Your task to perform on an android device: Go to CNN.com Image 0: 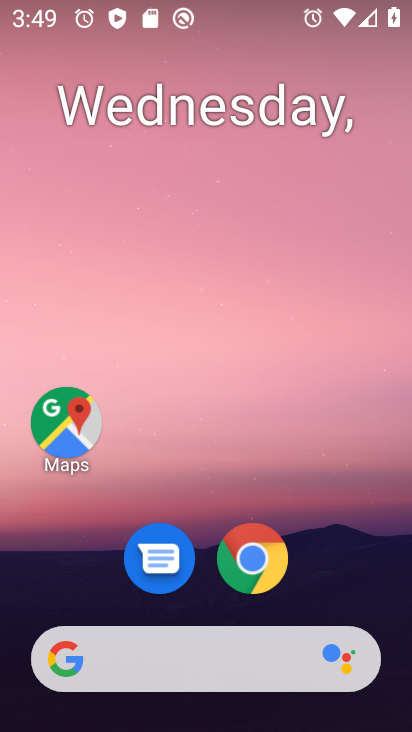
Step 0: click (236, 563)
Your task to perform on an android device: Go to CNN.com Image 1: 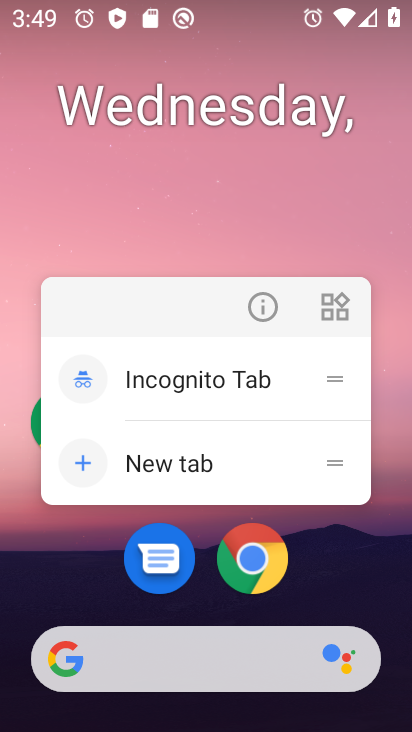
Step 1: click (258, 561)
Your task to perform on an android device: Go to CNN.com Image 2: 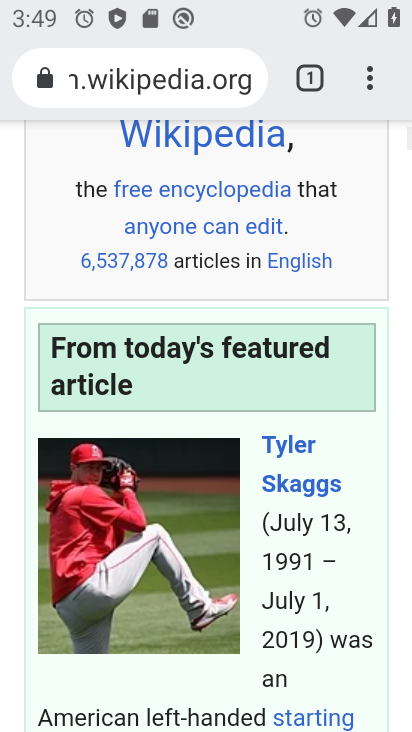
Step 2: click (303, 78)
Your task to perform on an android device: Go to CNN.com Image 3: 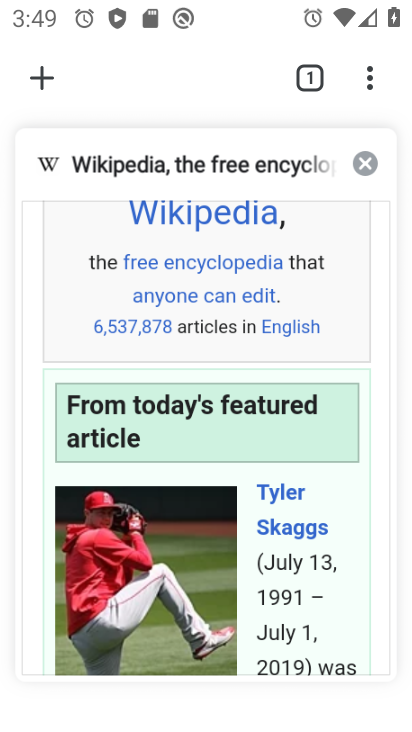
Step 3: click (366, 164)
Your task to perform on an android device: Go to CNN.com Image 4: 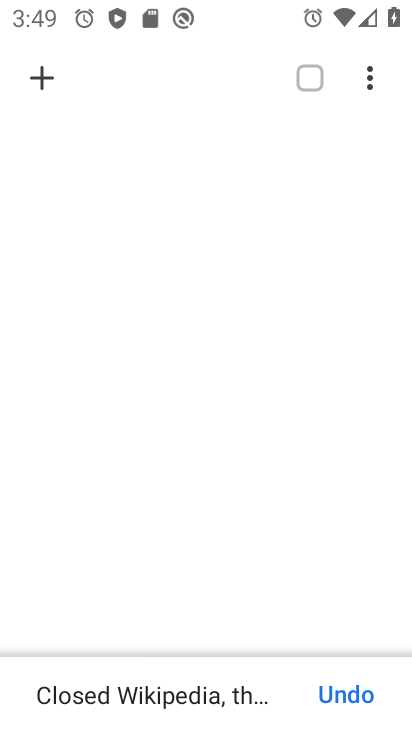
Step 4: click (37, 85)
Your task to perform on an android device: Go to CNN.com Image 5: 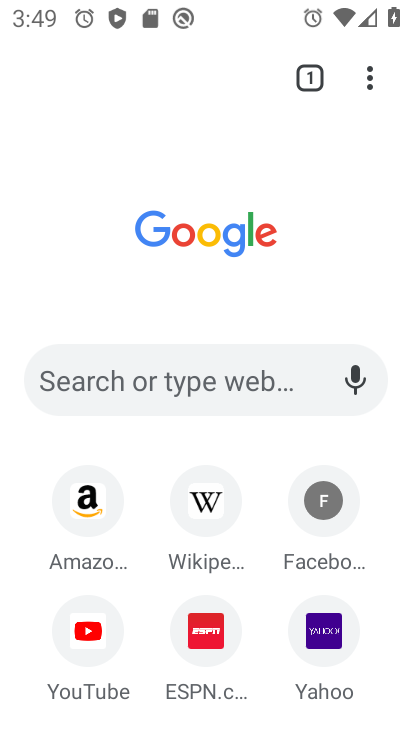
Step 5: drag from (153, 649) to (178, 328)
Your task to perform on an android device: Go to CNN.com Image 6: 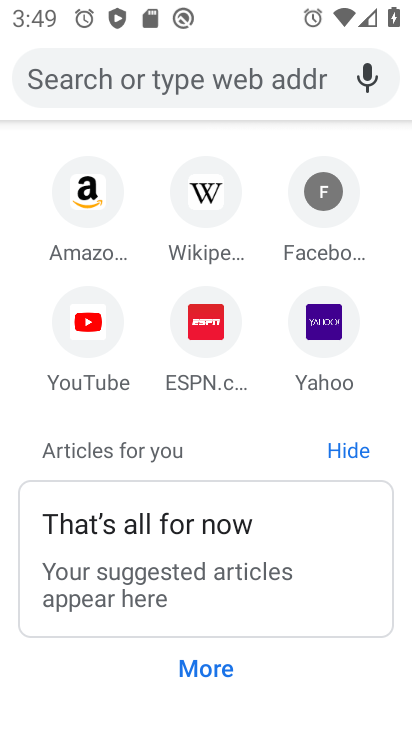
Step 6: click (139, 70)
Your task to perform on an android device: Go to CNN.com Image 7: 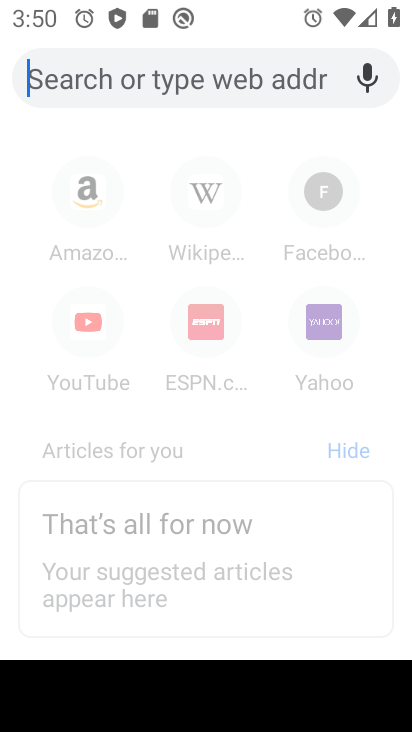
Step 7: type "CNN.com"
Your task to perform on an android device: Go to CNN.com Image 8: 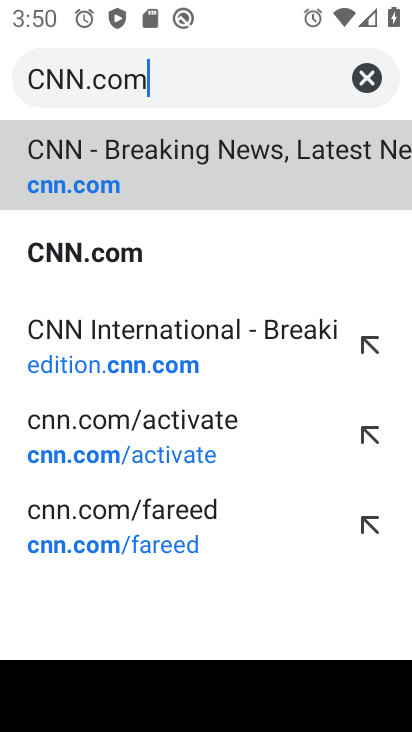
Step 8: click (110, 255)
Your task to perform on an android device: Go to CNN.com Image 9: 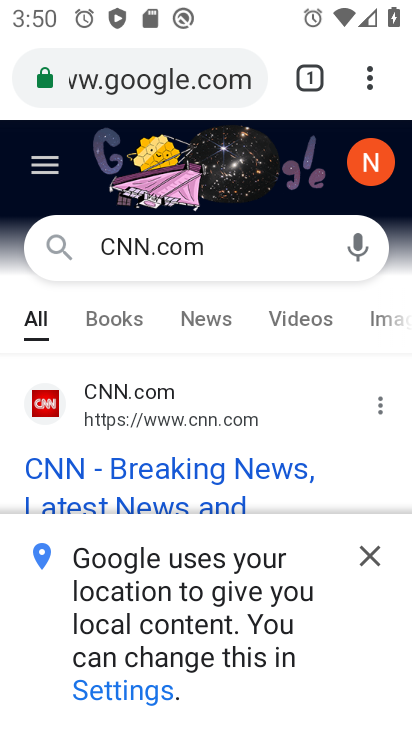
Step 9: task complete